Your task to perform on an android device: make emails show in primary in the gmail app Image 0: 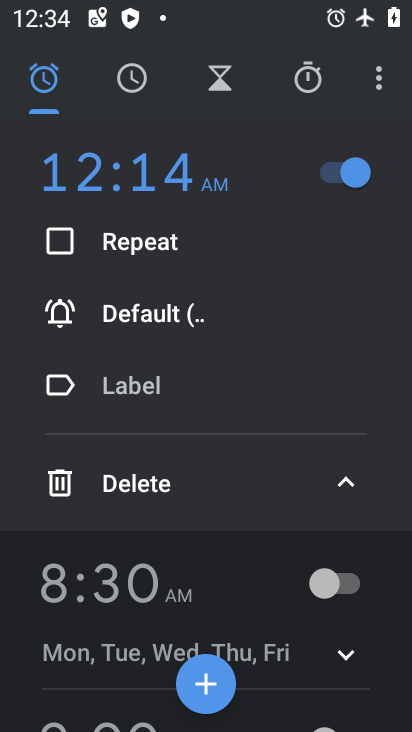
Step 0: press home button
Your task to perform on an android device: make emails show in primary in the gmail app Image 1: 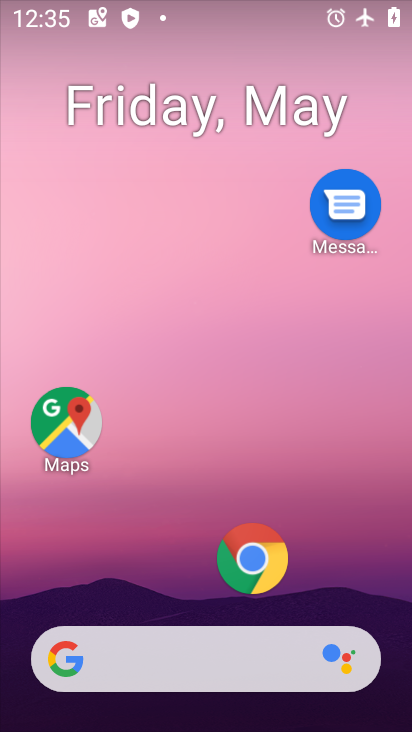
Step 1: drag from (239, 653) to (199, 133)
Your task to perform on an android device: make emails show in primary in the gmail app Image 2: 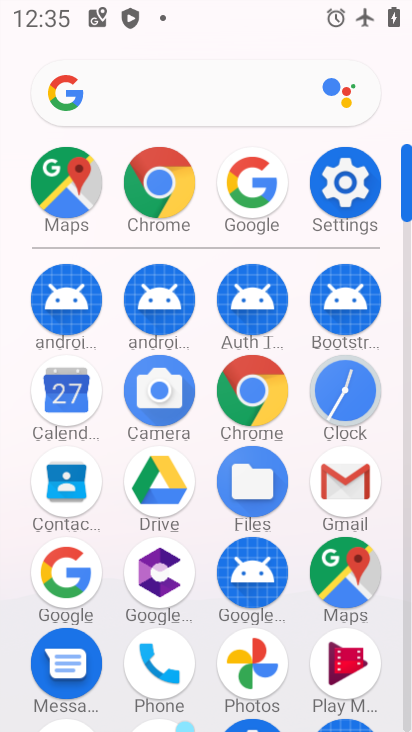
Step 2: click (351, 508)
Your task to perform on an android device: make emails show in primary in the gmail app Image 3: 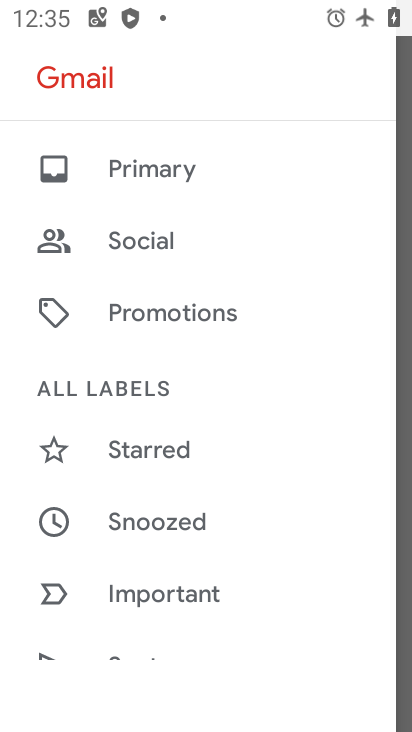
Step 3: drag from (159, 497) to (171, 233)
Your task to perform on an android device: make emails show in primary in the gmail app Image 4: 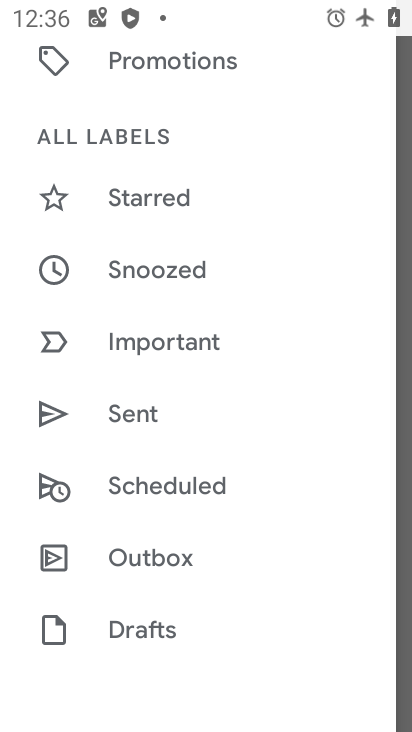
Step 4: drag from (187, 359) to (184, 620)
Your task to perform on an android device: make emails show in primary in the gmail app Image 5: 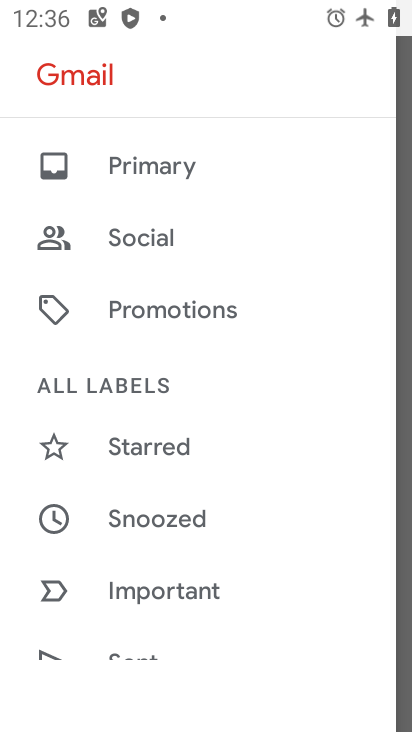
Step 5: drag from (178, 350) to (223, 621)
Your task to perform on an android device: make emails show in primary in the gmail app Image 6: 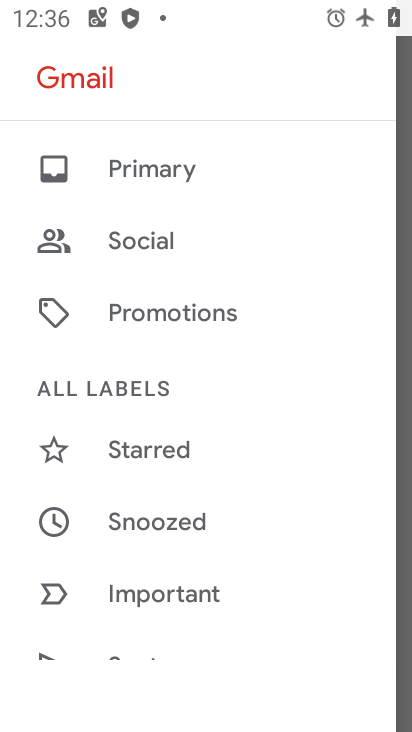
Step 6: click (189, 181)
Your task to perform on an android device: make emails show in primary in the gmail app Image 7: 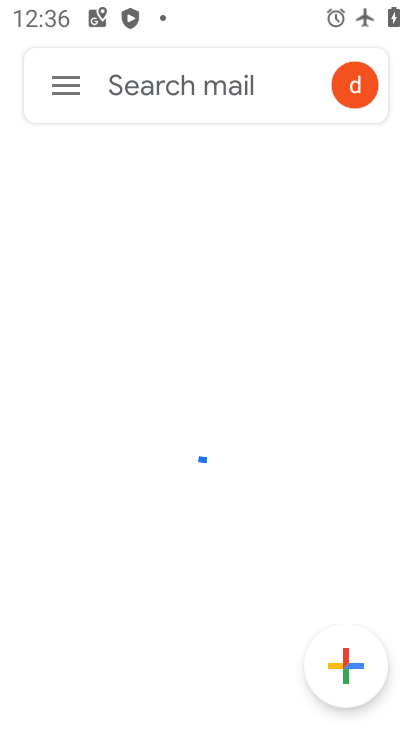
Step 7: task complete